Your task to perform on an android device: toggle javascript in the chrome app Image 0: 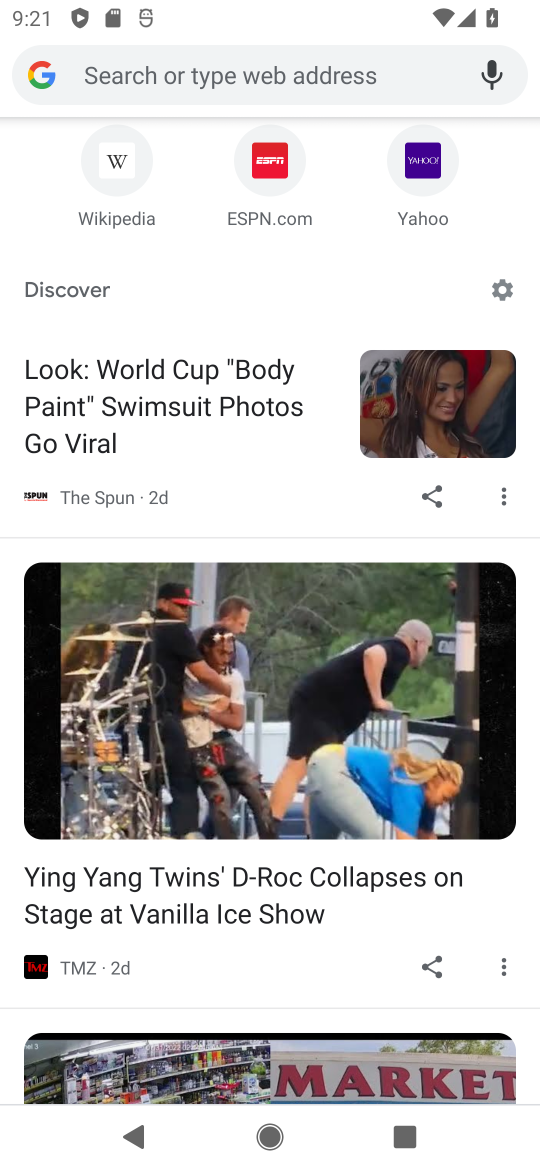
Step 0: press home button
Your task to perform on an android device: toggle javascript in the chrome app Image 1: 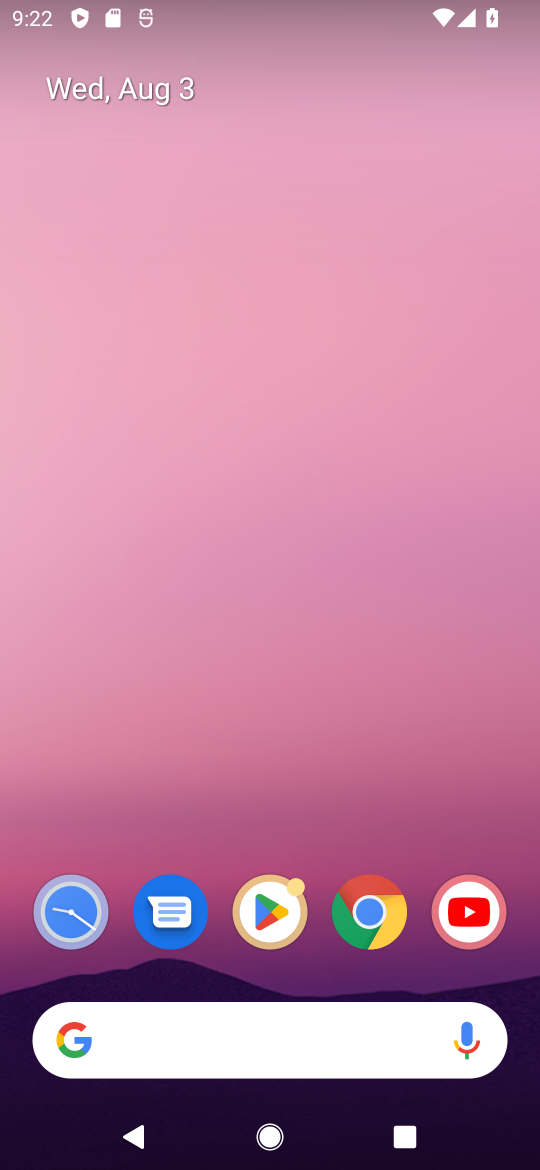
Step 1: drag from (416, 770) to (422, 209)
Your task to perform on an android device: toggle javascript in the chrome app Image 2: 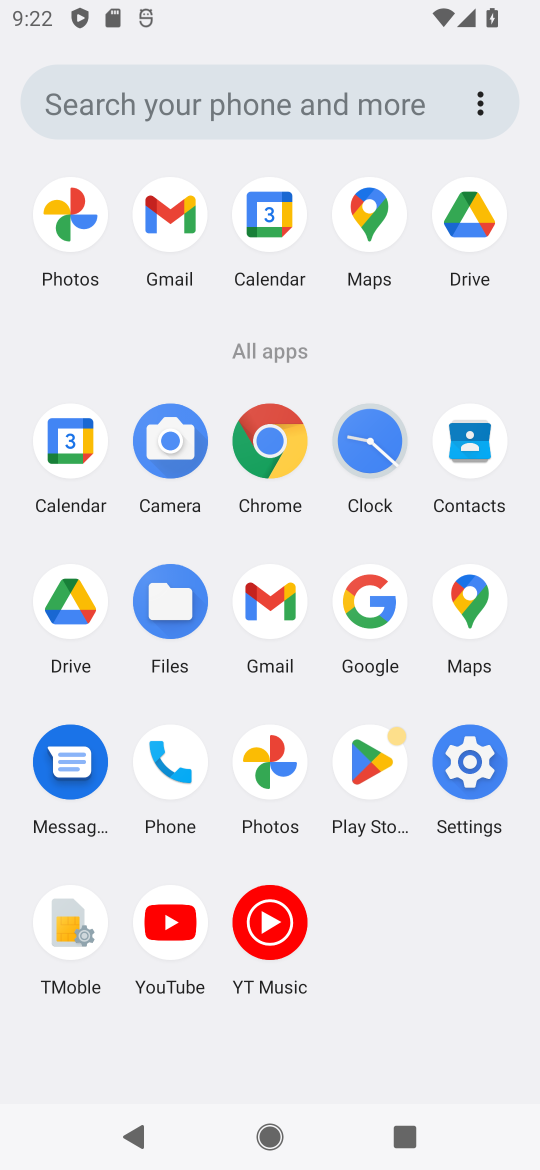
Step 2: click (274, 454)
Your task to perform on an android device: toggle javascript in the chrome app Image 3: 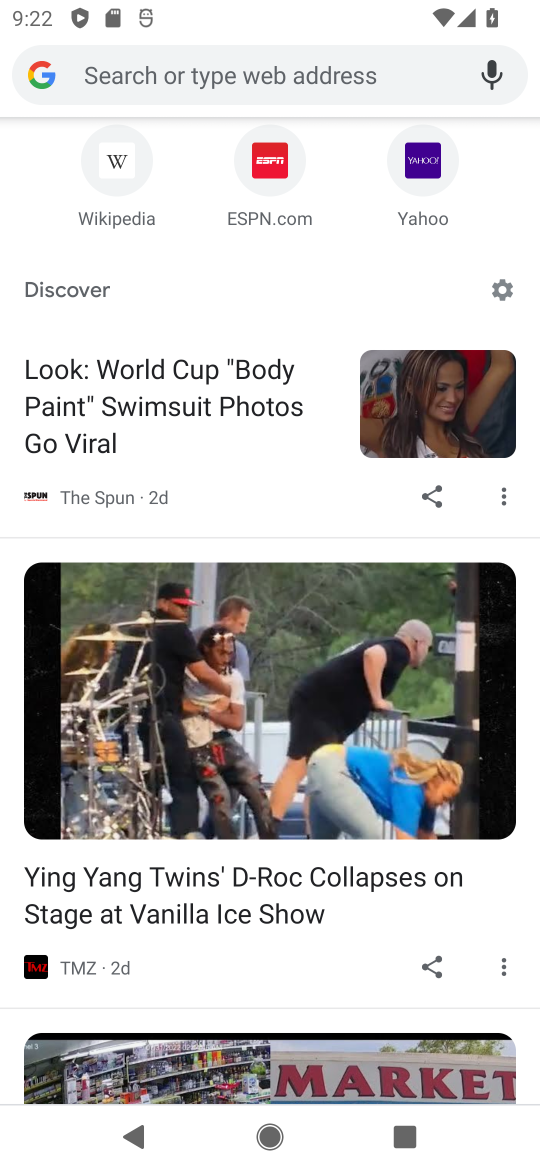
Step 3: drag from (437, 273) to (375, 931)
Your task to perform on an android device: toggle javascript in the chrome app Image 4: 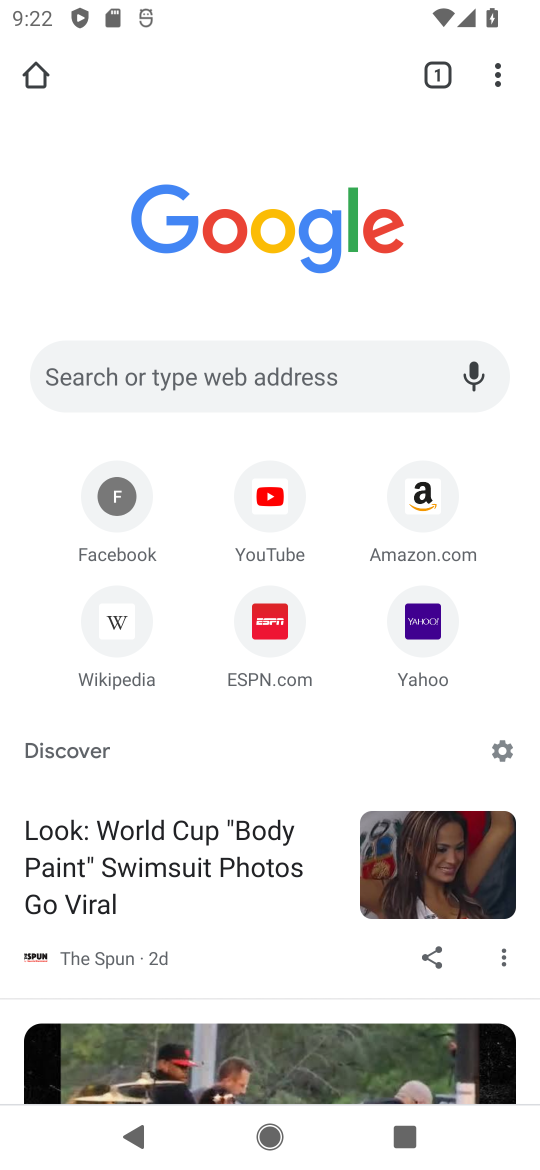
Step 4: drag from (509, 79) to (241, 702)
Your task to perform on an android device: toggle javascript in the chrome app Image 5: 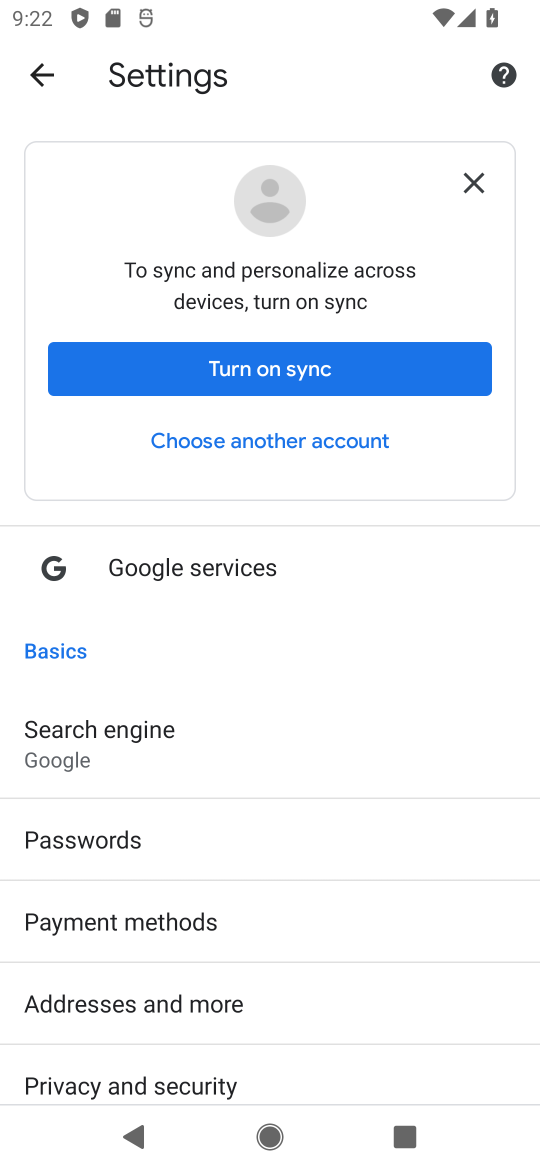
Step 5: drag from (108, 1022) to (261, 410)
Your task to perform on an android device: toggle javascript in the chrome app Image 6: 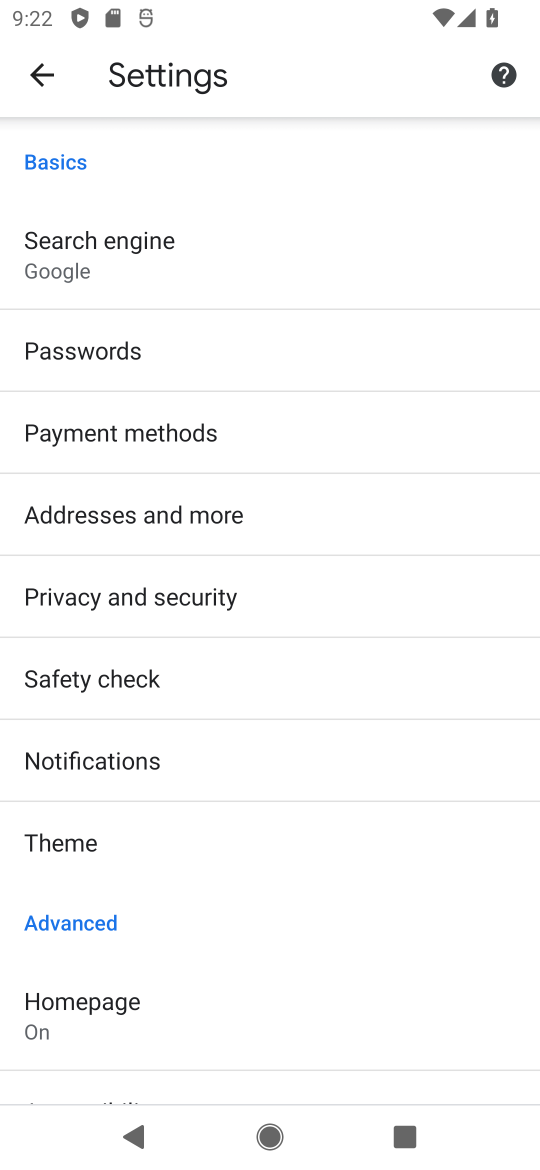
Step 6: drag from (209, 909) to (282, 370)
Your task to perform on an android device: toggle javascript in the chrome app Image 7: 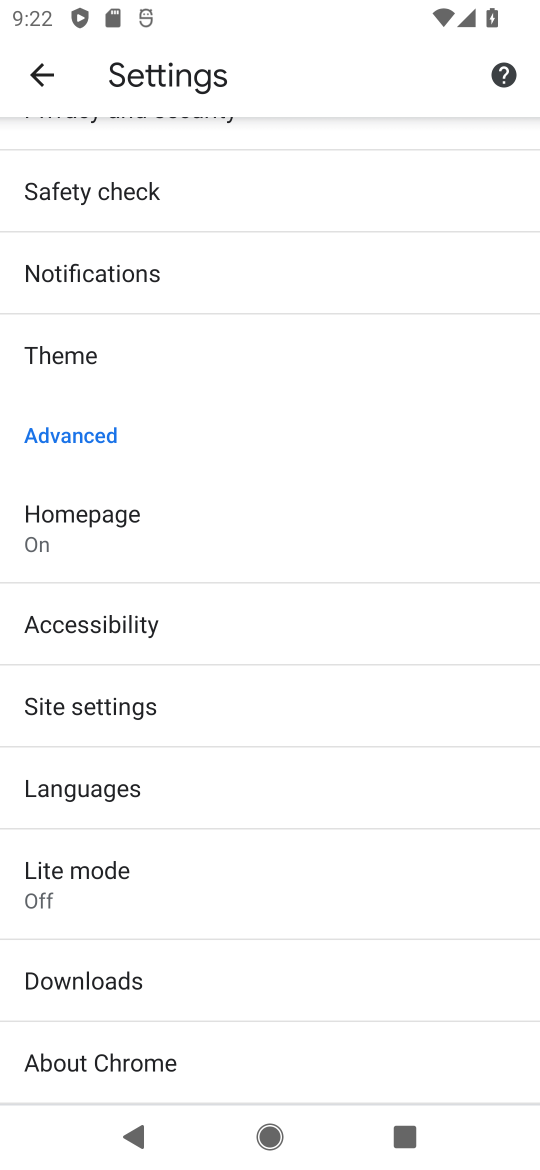
Step 7: click (86, 697)
Your task to perform on an android device: toggle javascript in the chrome app Image 8: 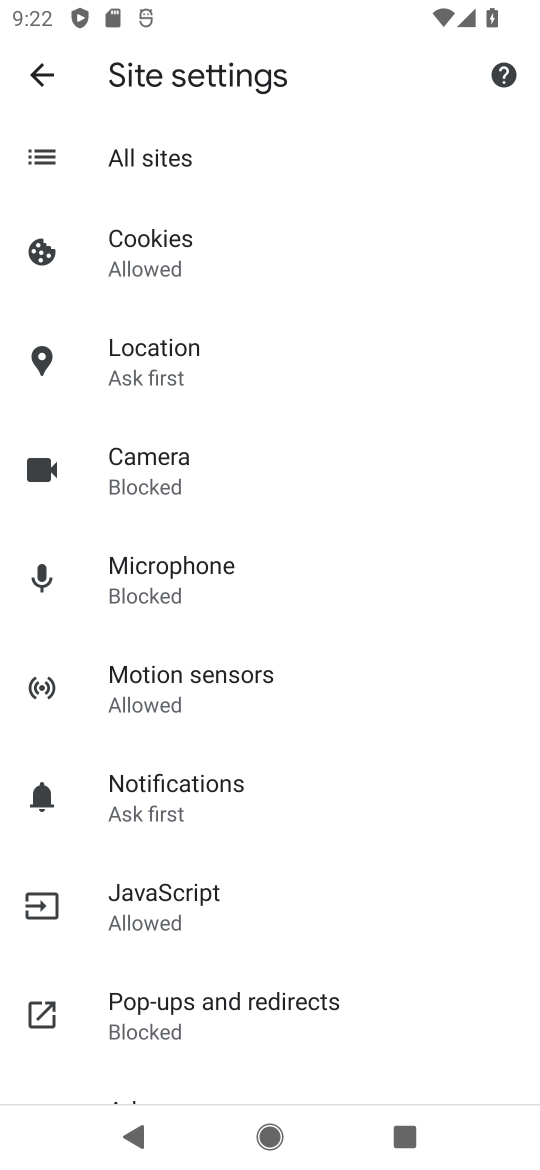
Step 8: click (172, 891)
Your task to perform on an android device: toggle javascript in the chrome app Image 9: 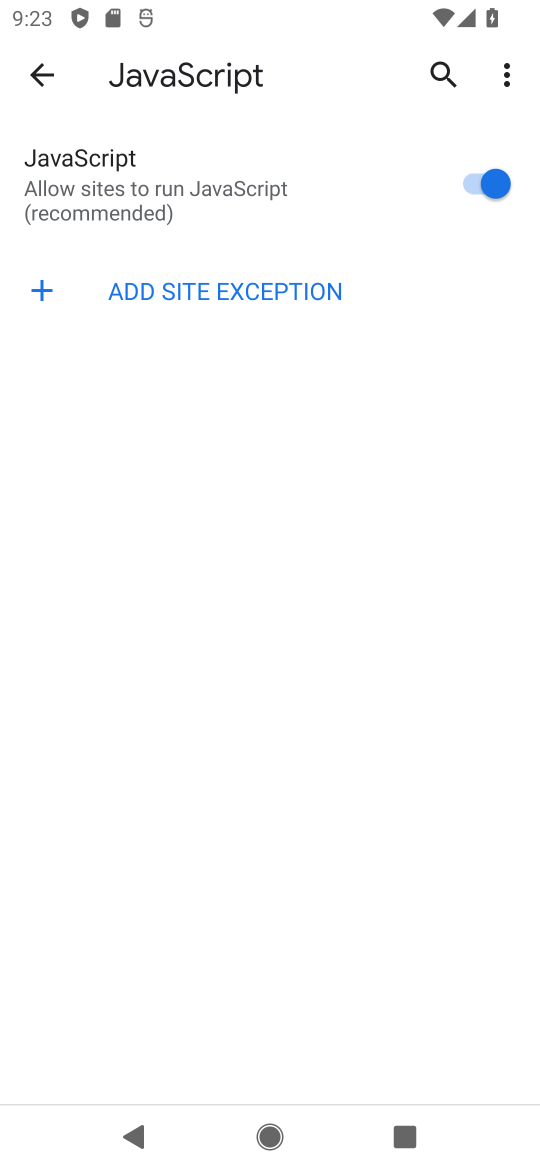
Step 9: click (500, 183)
Your task to perform on an android device: toggle javascript in the chrome app Image 10: 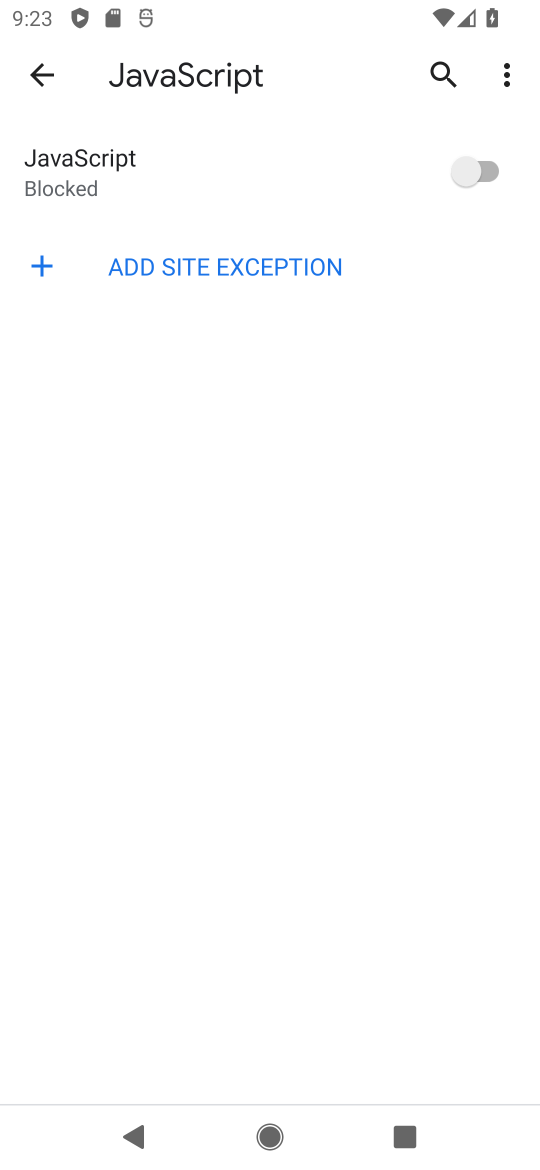
Step 10: task complete